Your task to perform on an android device: Search for Italian restaurants on Maps Image 0: 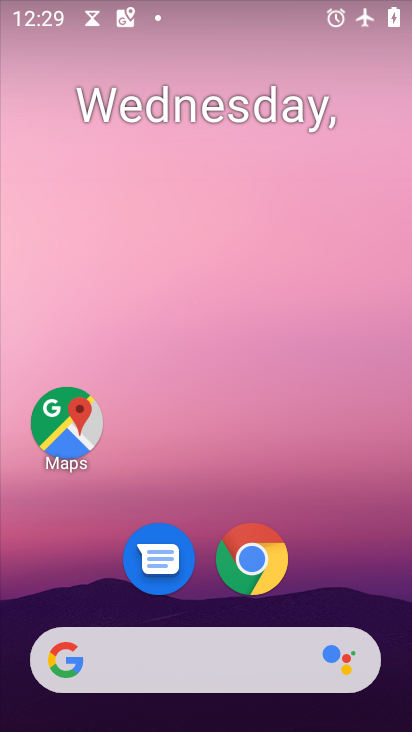
Step 0: drag from (376, 586) to (352, 23)
Your task to perform on an android device: Search for Italian restaurants on Maps Image 1: 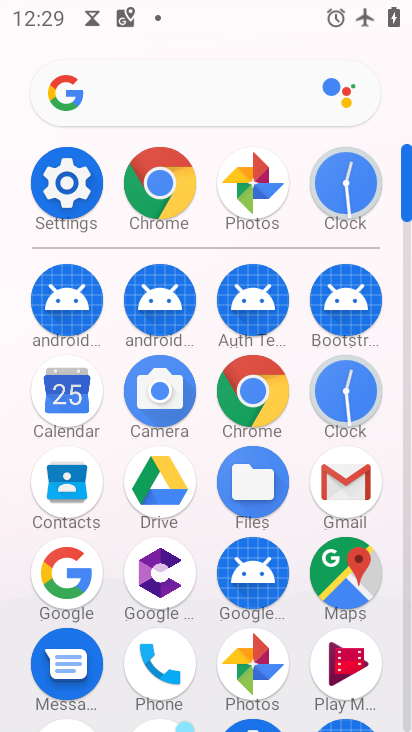
Step 1: click (355, 576)
Your task to perform on an android device: Search for Italian restaurants on Maps Image 2: 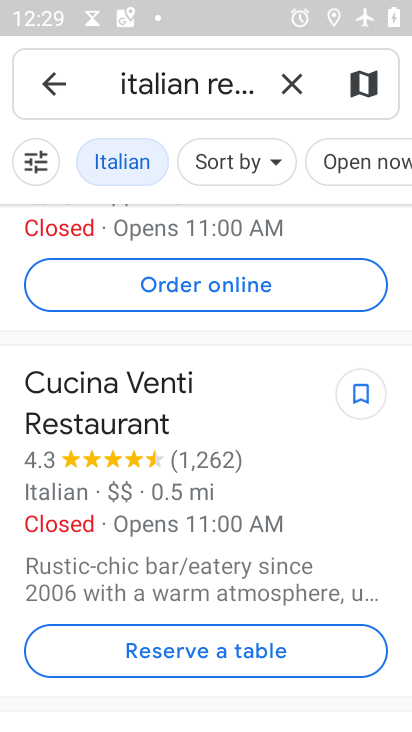
Step 2: task complete